Your task to perform on an android device: open wifi settings Image 0: 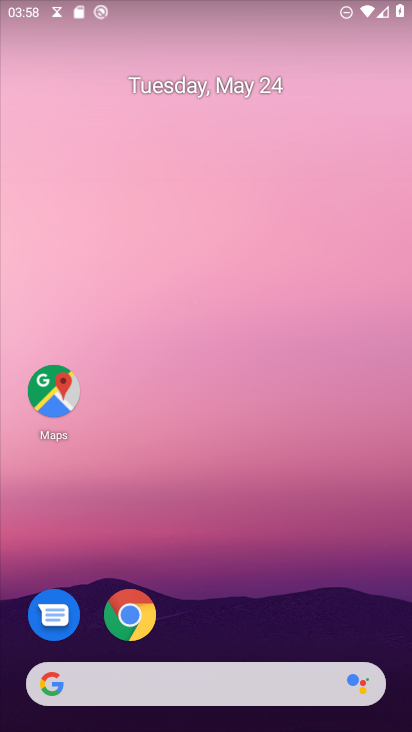
Step 0: drag from (286, 548) to (260, 19)
Your task to perform on an android device: open wifi settings Image 1: 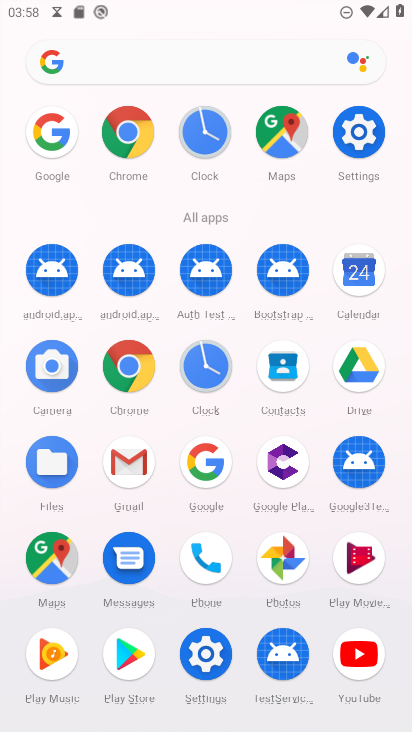
Step 1: click (203, 649)
Your task to perform on an android device: open wifi settings Image 2: 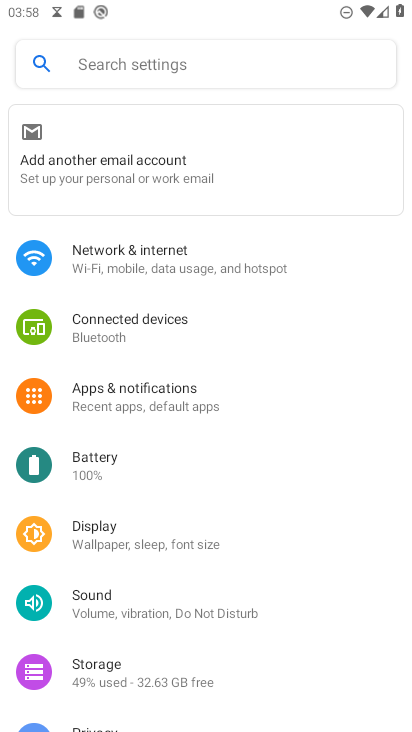
Step 2: click (176, 262)
Your task to perform on an android device: open wifi settings Image 3: 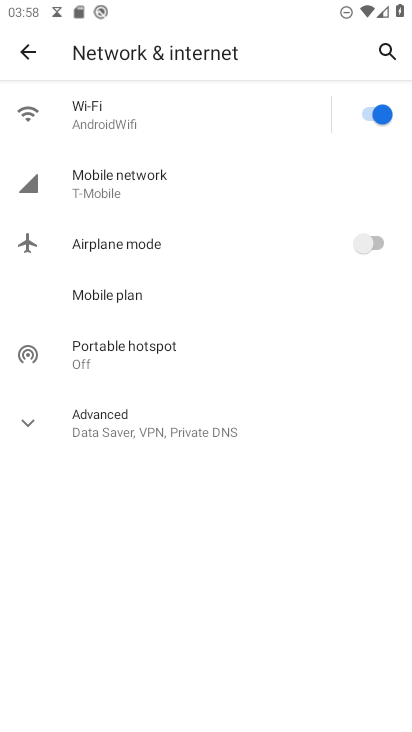
Step 3: click (141, 113)
Your task to perform on an android device: open wifi settings Image 4: 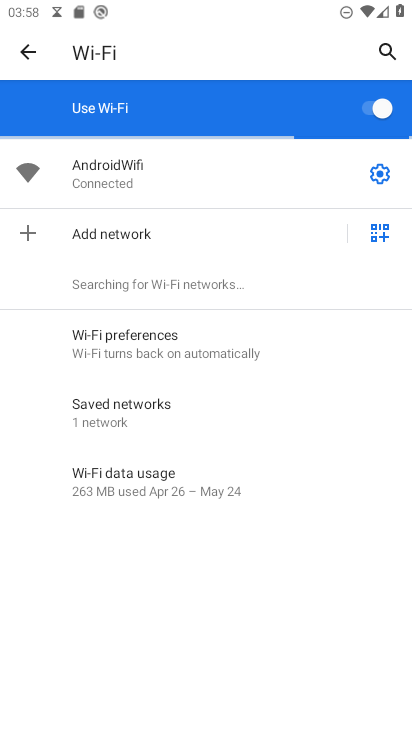
Step 4: task complete